Your task to perform on an android device: stop showing notifications on the lock screen Image 0: 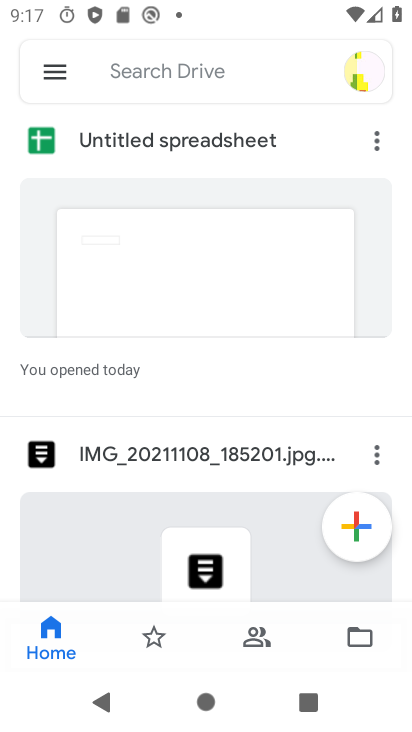
Step 0: press home button
Your task to perform on an android device: stop showing notifications on the lock screen Image 1: 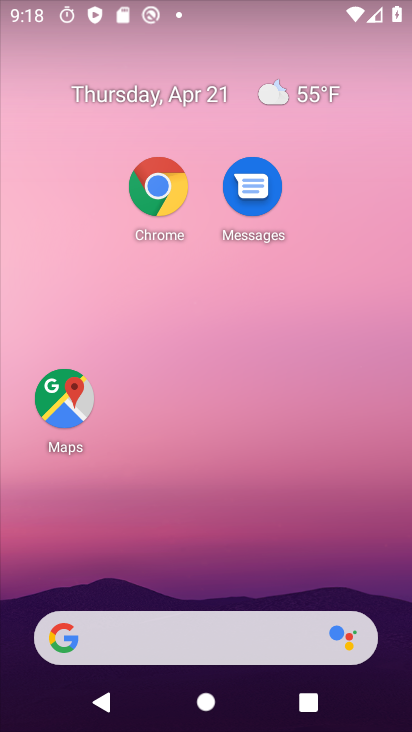
Step 1: drag from (199, 470) to (232, 2)
Your task to perform on an android device: stop showing notifications on the lock screen Image 2: 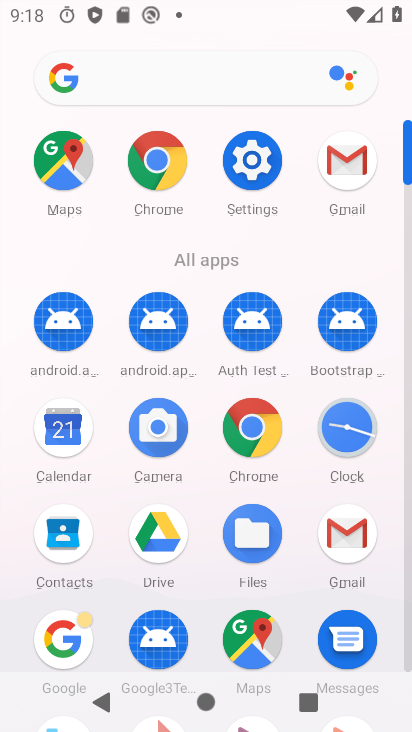
Step 2: click (255, 173)
Your task to perform on an android device: stop showing notifications on the lock screen Image 3: 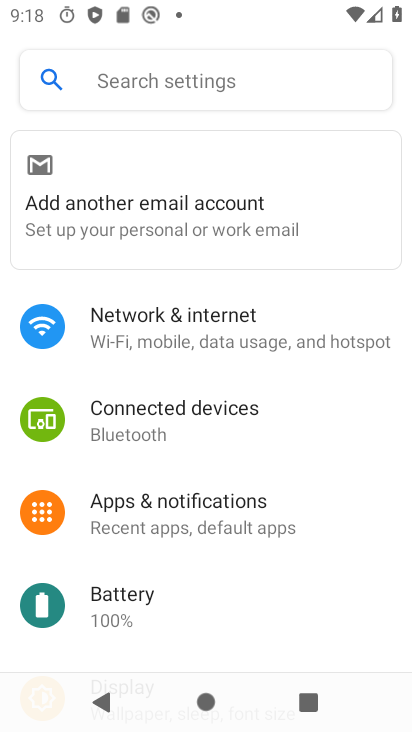
Step 3: click (231, 505)
Your task to perform on an android device: stop showing notifications on the lock screen Image 4: 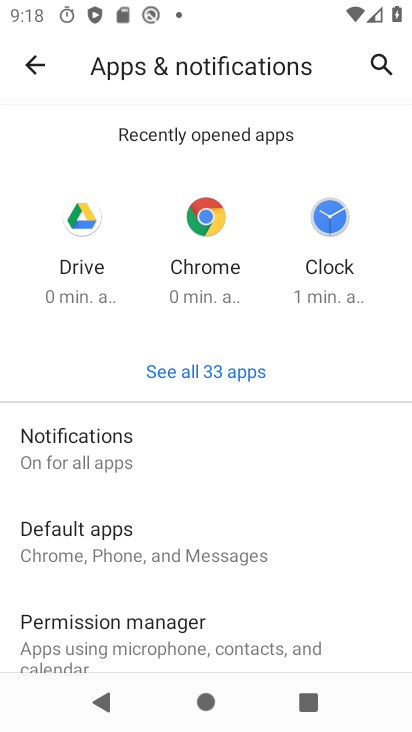
Step 4: click (141, 451)
Your task to perform on an android device: stop showing notifications on the lock screen Image 5: 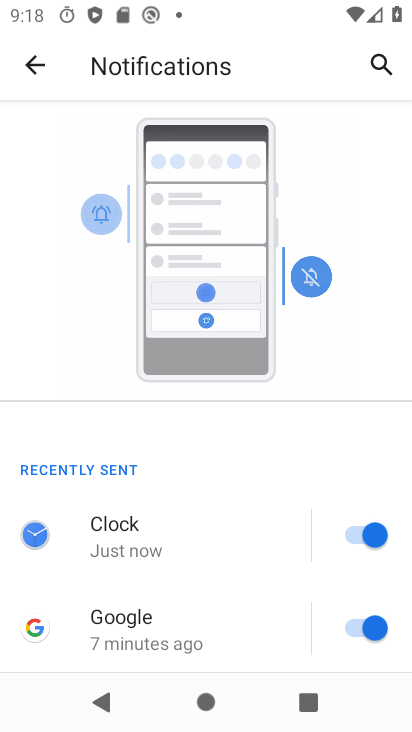
Step 5: drag from (194, 627) to (217, 216)
Your task to perform on an android device: stop showing notifications on the lock screen Image 6: 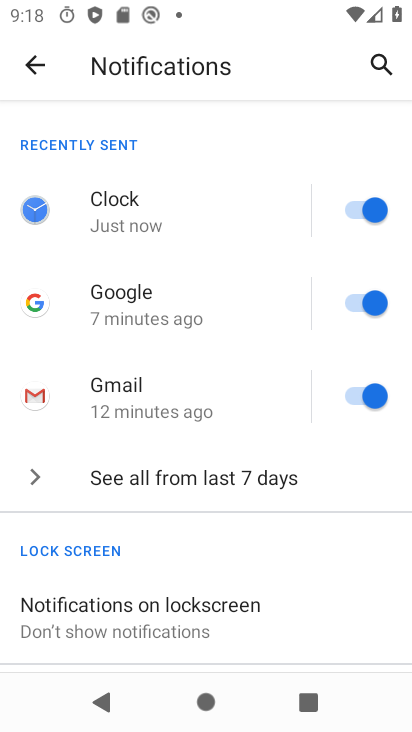
Step 6: click (163, 615)
Your task to perform on an android device: stop showing notifications on the lock screen Image 7: 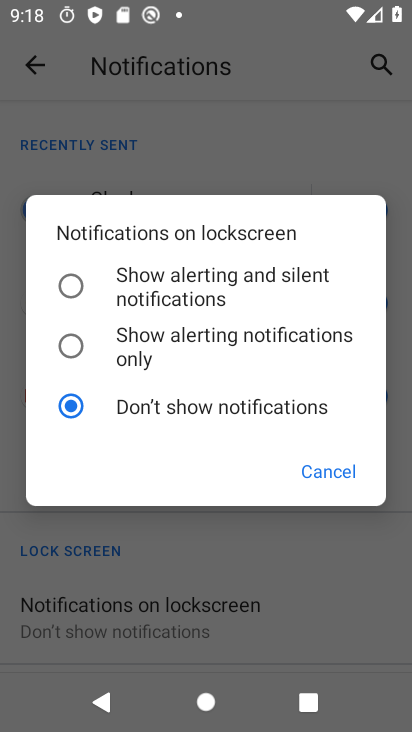
Step 7: task complete